Your task to perform on an android device: find snoozed emails in the gmail app Image 0: 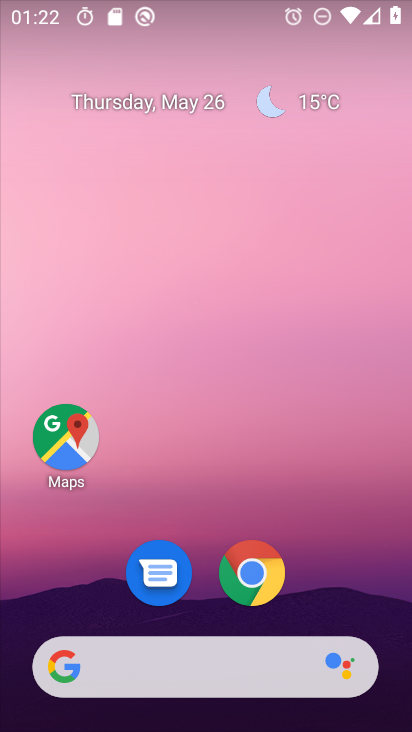
Step 0: drag from (351, 606) to (326, 0)
Your task to perform on an android device: find snoozed emails in the gmail app Image 1: 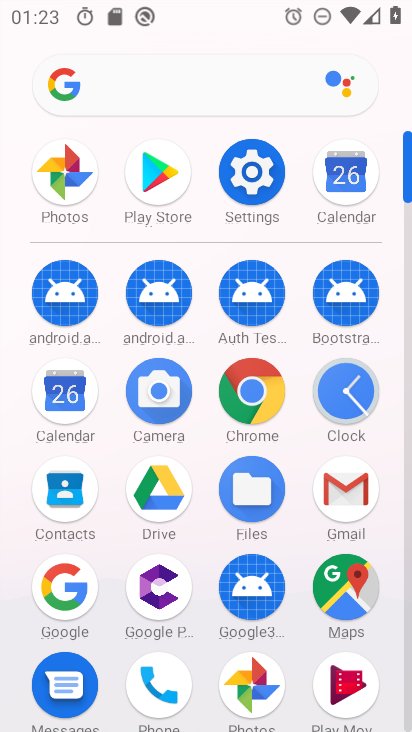
Step 1: click (334, 493)
Your task to perform on an android device: find snoozed emails in the gmail app Image 2: 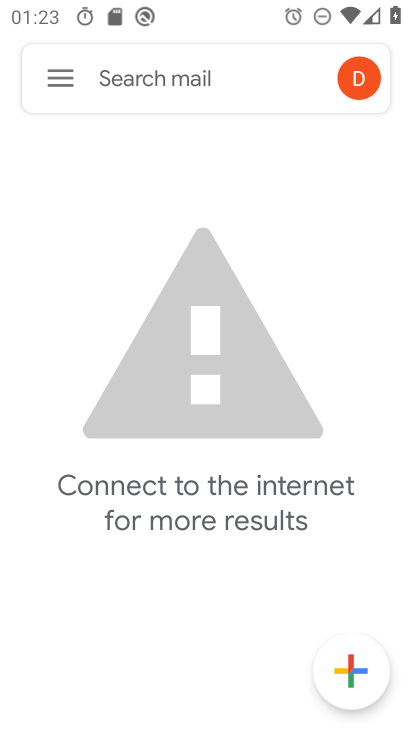
Step 2: click (45, 85)
Your task to perform on an android device: find snoozed emails in the gmail app Image 3: 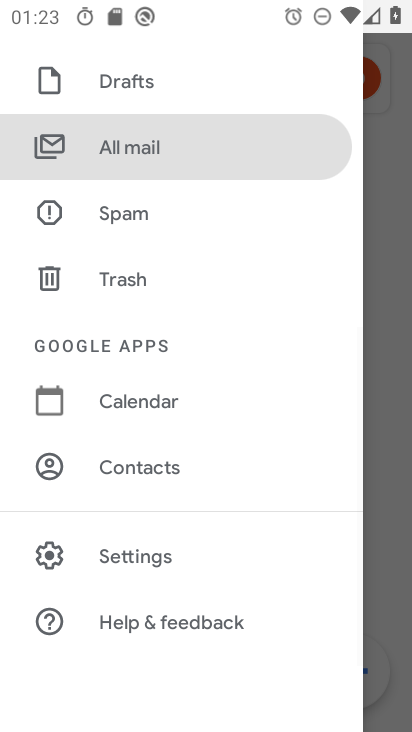
Step 3: drag from (239, 238) to (265, 624)
Your task to perform on an android device: find snoozed emails in the gmail app Image 4: 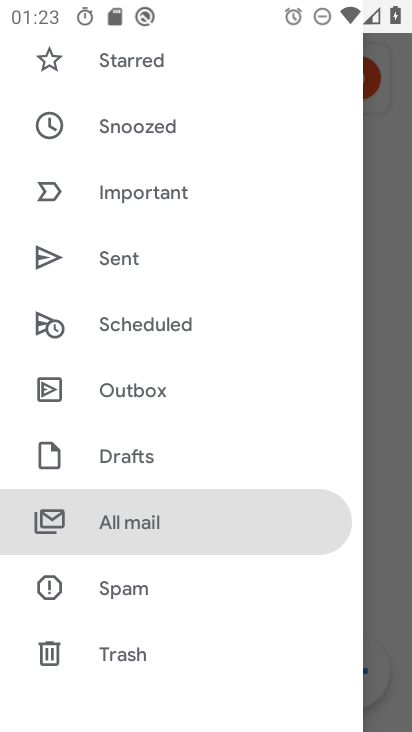
Step 4: click (124, 128)
Your task to perform on an android device: find snoozed emails in the gmail app Image 5: 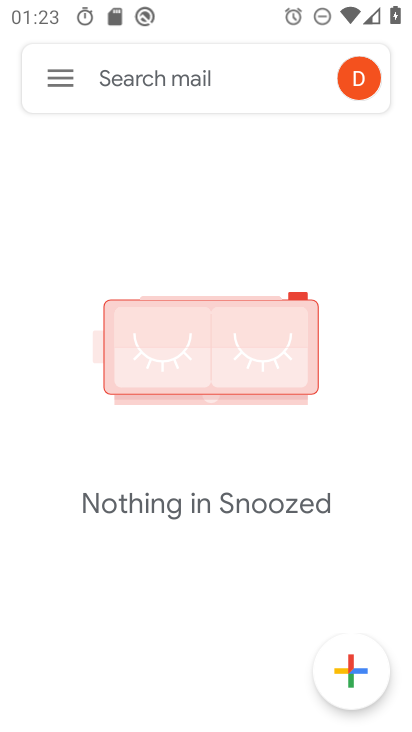
Step 5: task complete